Your task to perform on an android device: Open display settings Image 0: 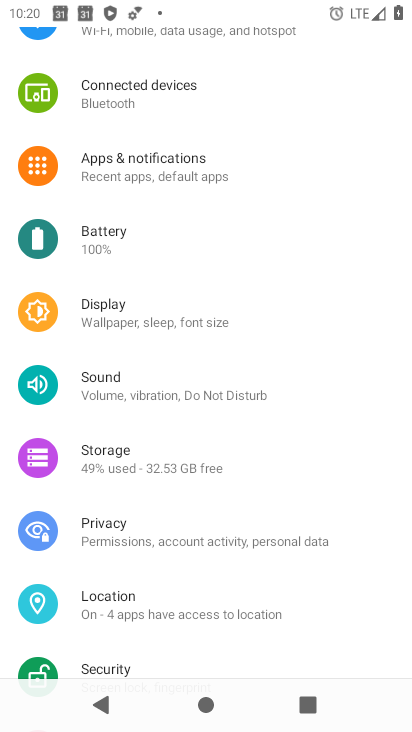
Step 0: click (82, 309)
Your task to perform on an android device: Open display settings Image 1: 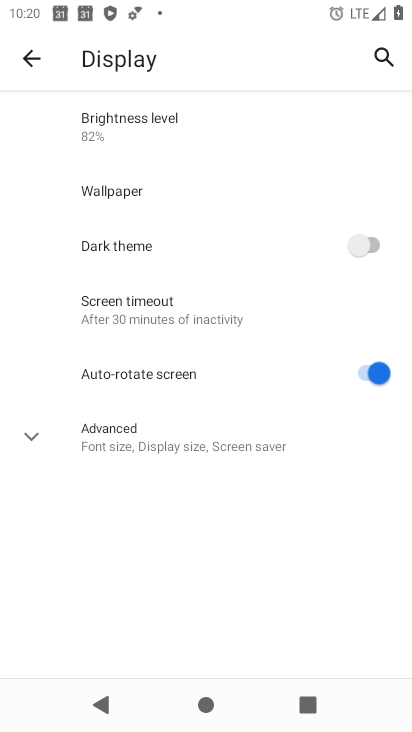
Step 1: task complete